Your task to perform on an android device: Go to display settings Image 0: 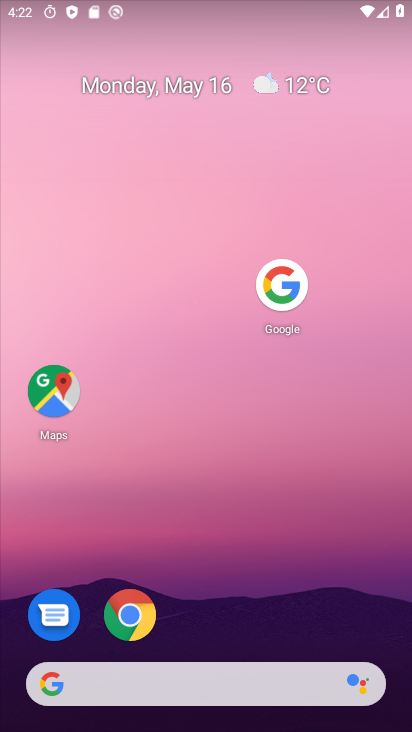
Step 0: drag from (208, 651) to (152, 5)
Your task to perform on an android device: Go to display settings Image 1: 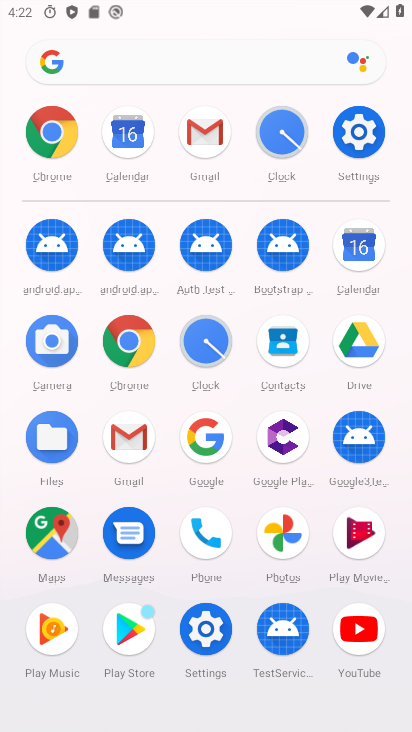
Step 1: click (370, 146)
Your task to perform on an android device: Go to display settings Image 2: 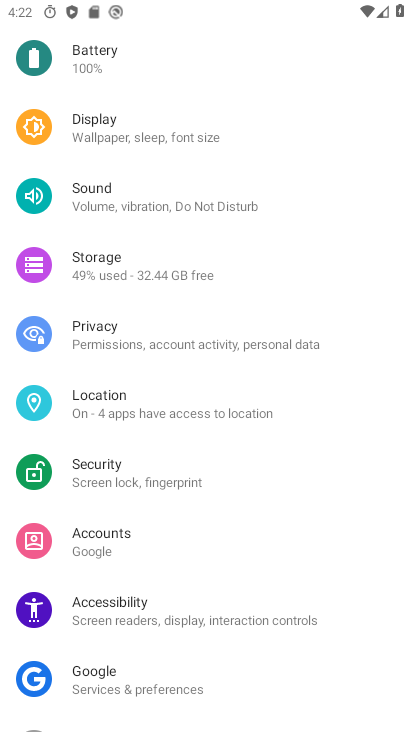
Step 2: click (83, 147)
Your task to perform on an android device: Go to display settings Image 3: 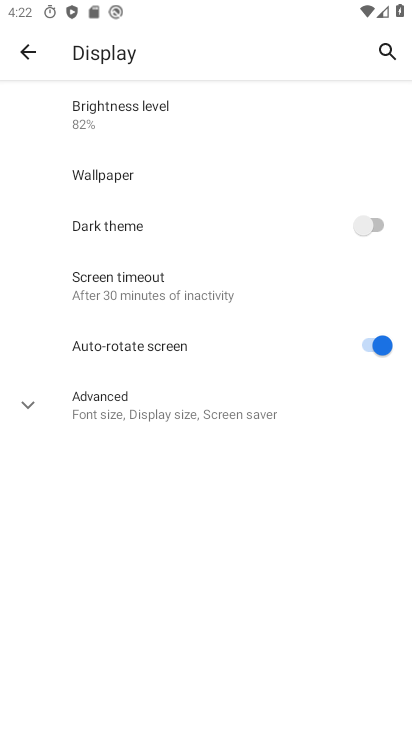
Step 3: task complete